Your task to perform on an android device: turn off notifications settings in the gmail app Image 0: 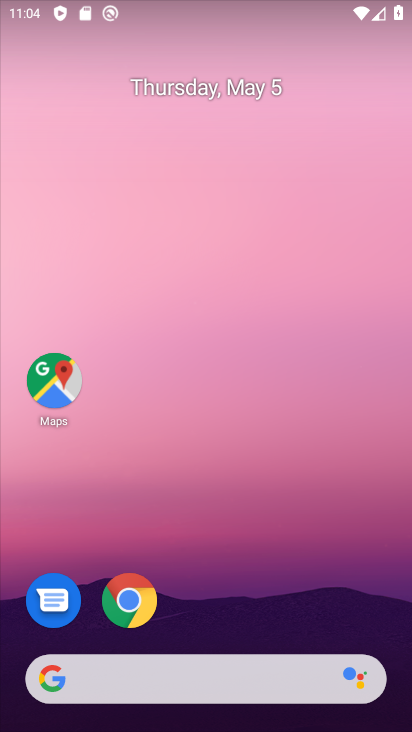
Step 0: drag from (397, 662) to (291, 75)
Your task to perform on an android device: turn off notifications settings in the gmail app Image 1: 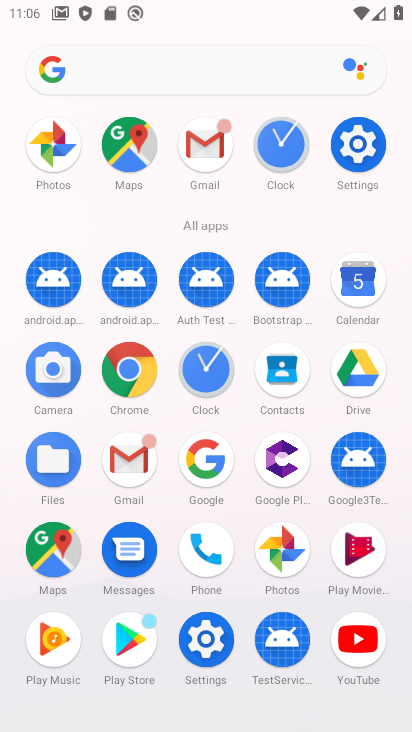
Step 1: click (134, 471)
Your task to perform on an android device: turn off notifications settings in the gmail app Image 2: 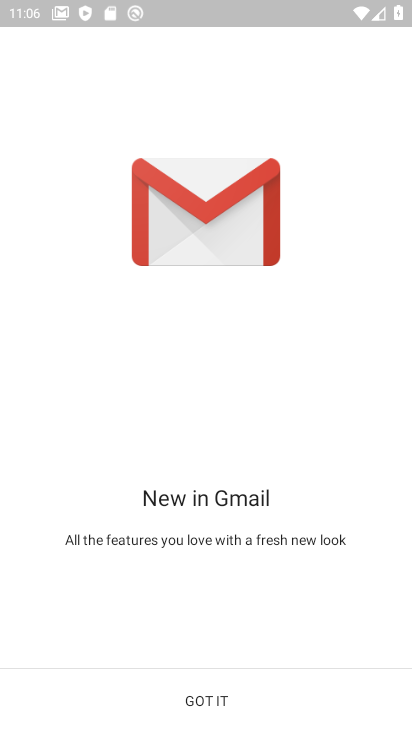
Step 2: click (205, 704)
Your task to perform on an android device: turn off notifications settings in the gmail app Image 3: 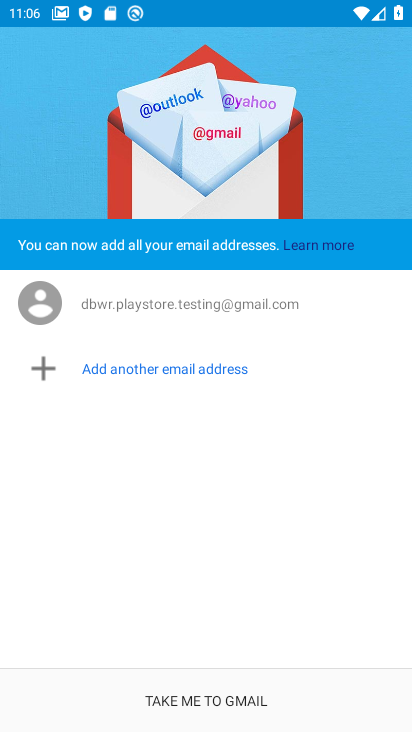
Step 3: click (205, 704)
Your task to perform on an android device: turn off notifications settings in the gmail app Image 4: 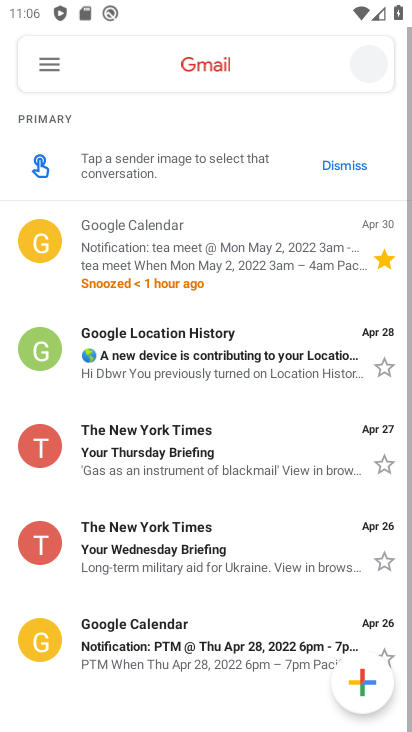
Step 4: click (41, 67)
Your task to perform on an android device: turn off notifications settings in the gmail app Image 5: 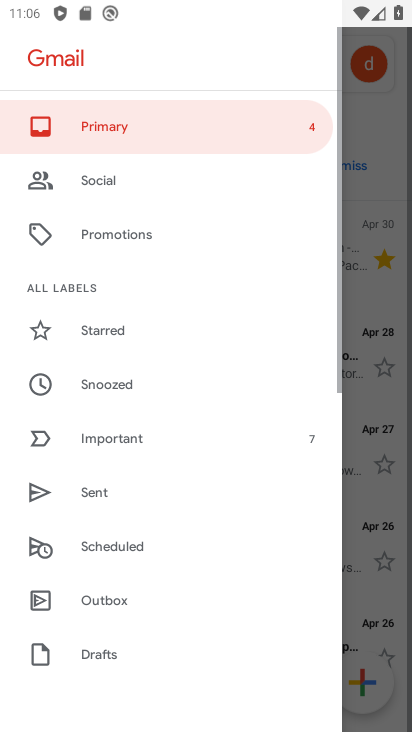
Step 5: drag from (137, 680) to (204, 186)
Your task to perform on an android device: turn off notifications settings in the gmail app Image 6: 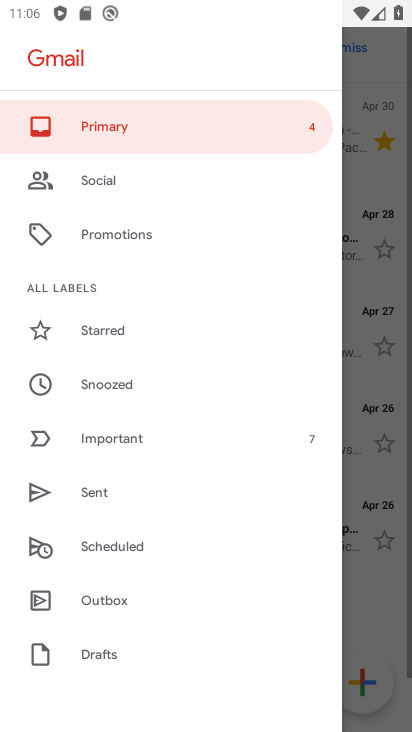
Step 6: drag from (145, 656) to (196, 119)
Your task to perform on an android device: turn off notifications settings in the gmail app Image 7: 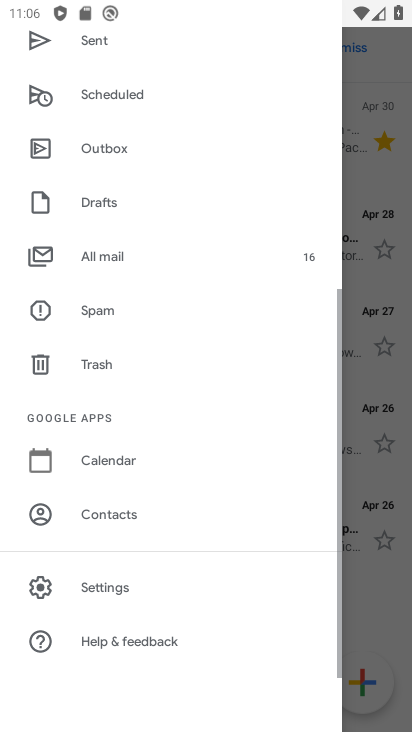
Step 7: click (122, 587)
Your task to perform on an android device: turn off notifications settings in the gmail app Image 8: 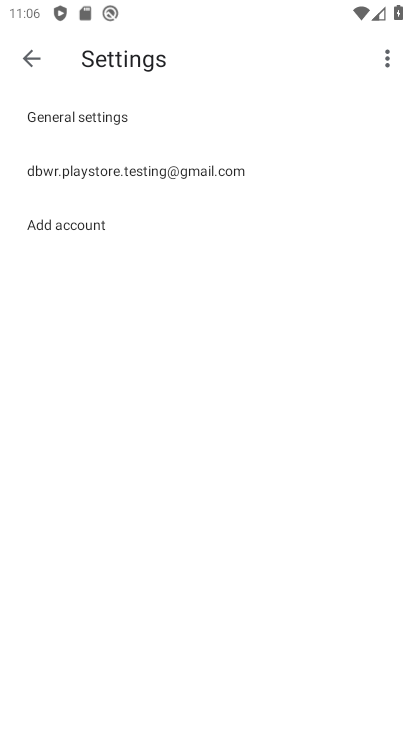
Step 8: click (140, 162)
Your task to perform on an android device: turn off notifications settings in the gmail app Image 9: 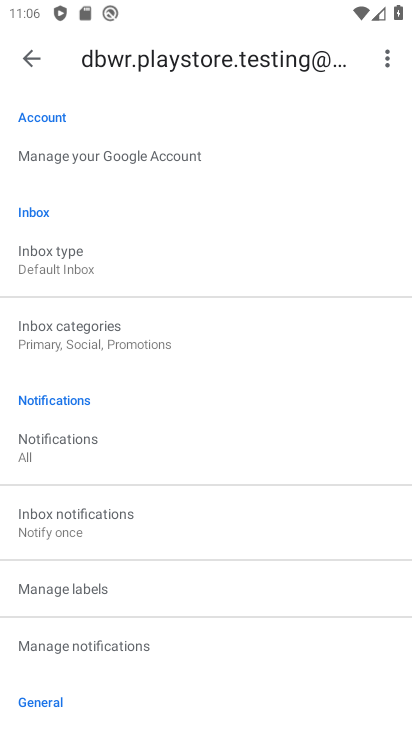
Step 9: click (122, 466)
Your task to perform on an android device: turn off notifications settings in the gmail app Image 10: 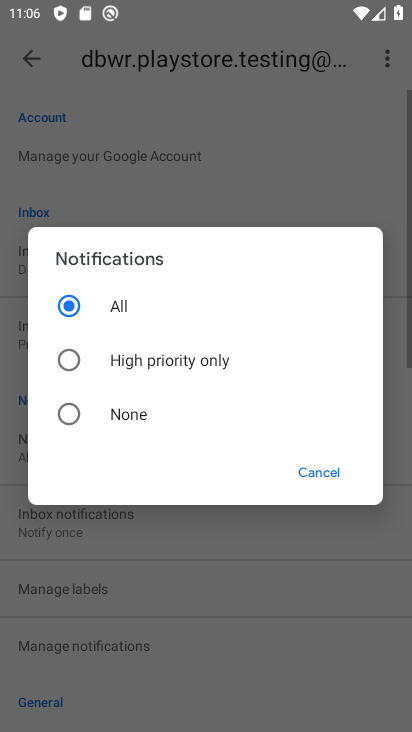
Step 10: click (104, 403)
Your task to perform on an android device: turn off notifications settings in the gmail app Image 11: 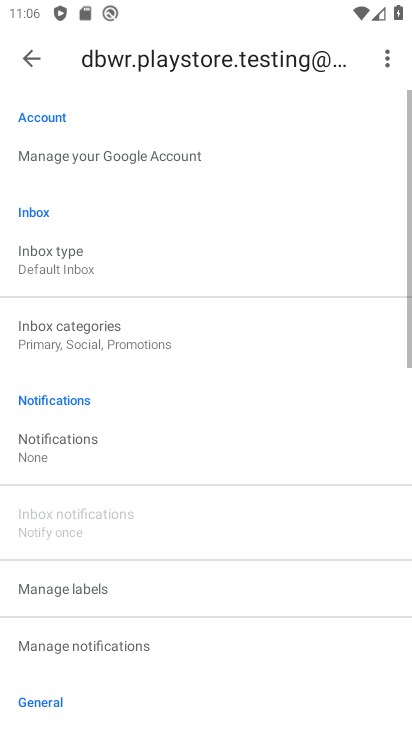
Step 11: task complete